Your task to perform on an android device: Open ESPN.com Image 0: 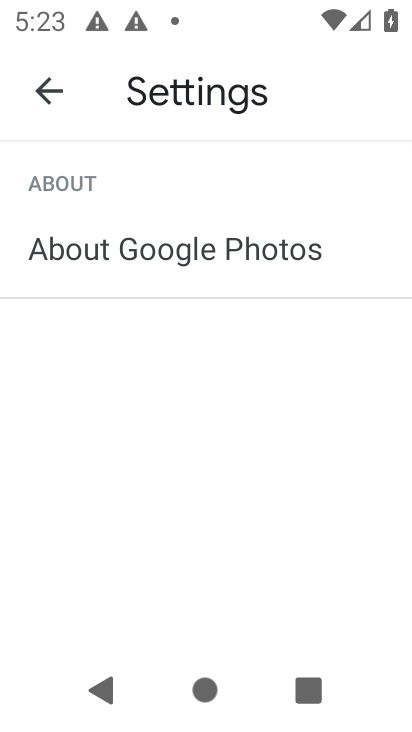
Step 0: press home button
Your task to perform on an android device: Open ESPN.com Image 1: 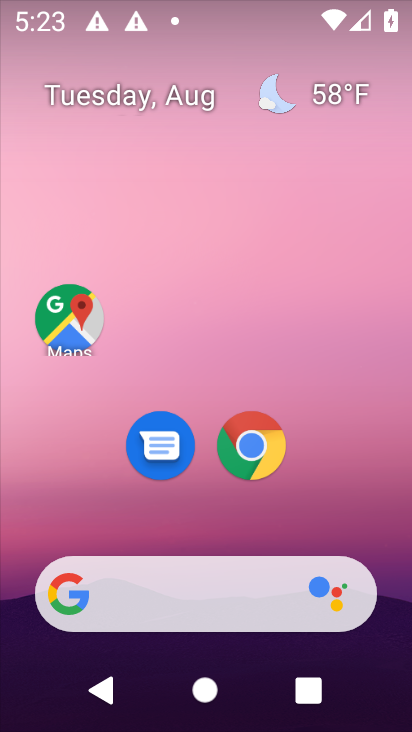
Step 1: click (247, 452)
Your task to perform on an android device: Open ESPN.com Image 2: 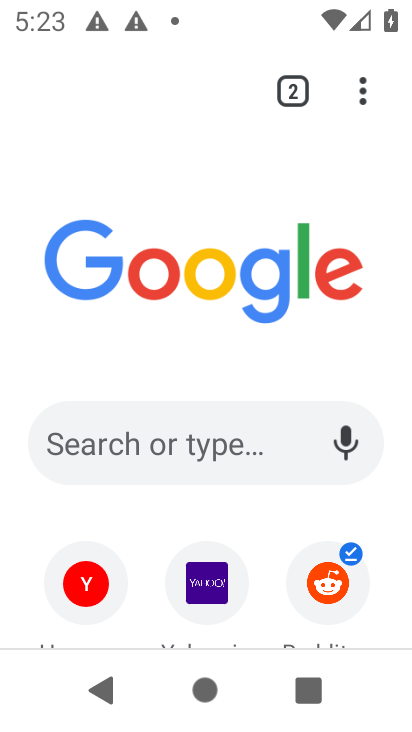
Step 2: drag from (146, 552) to (146, 265)
Your task to perform on an android device: Open ESPN.com Image 3: 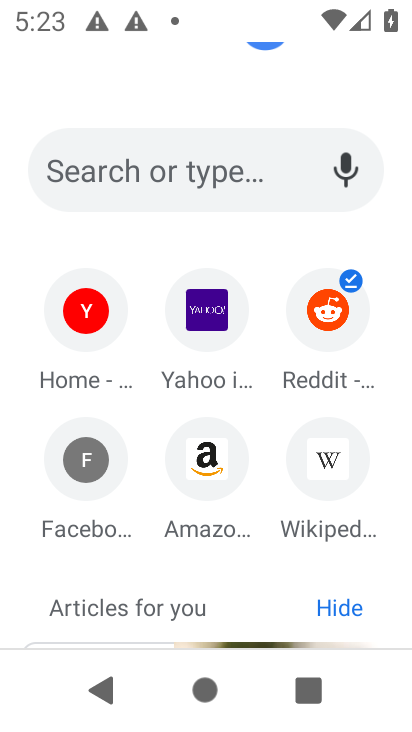
Step 3: click (180, 154)
Your task to perform on an android device: Open ESPN.com Image 4: 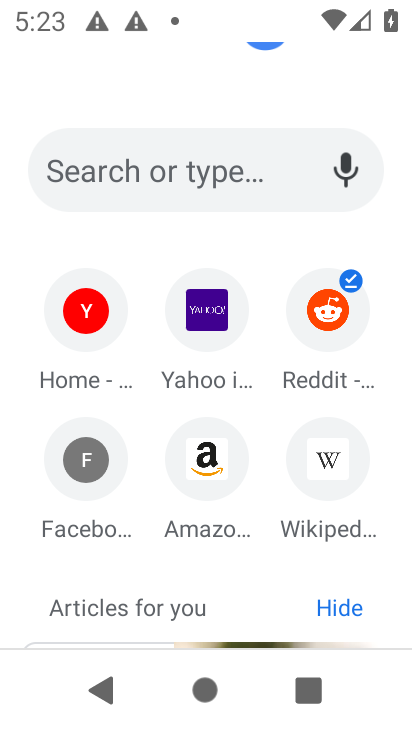
Step 4: click (166, 166)
Your task to perform on an android device: Open ESPN.com Image 5: 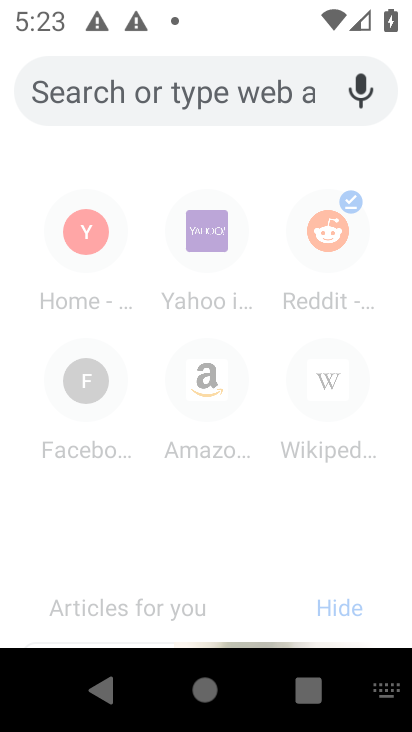
Step 5: type "www.espn.com"
Your task to perform on an android device: Open ESPN.com Image 6: 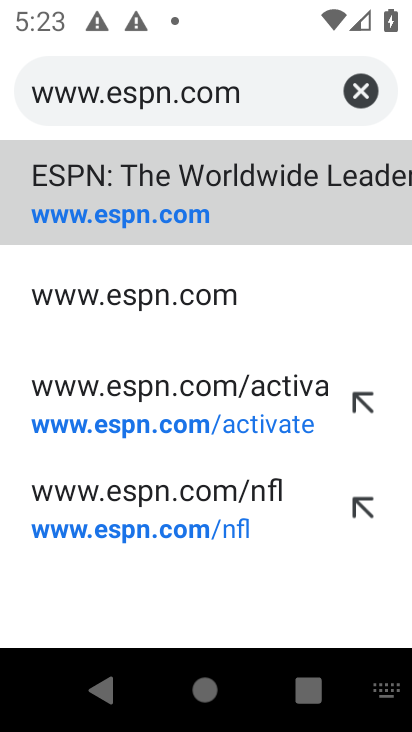
Step 6: click (125, 219)
Your task to perform on an android device: Open ESPN.com Image 7: 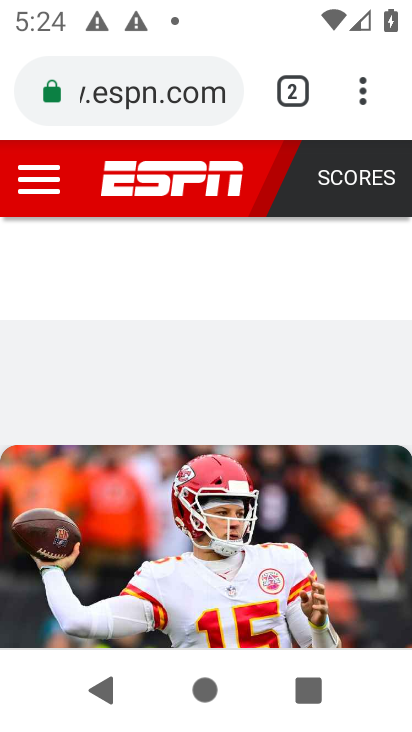
Step 7: task complete